Your task to perform on an android device: Turn on the flashlight Image 0: 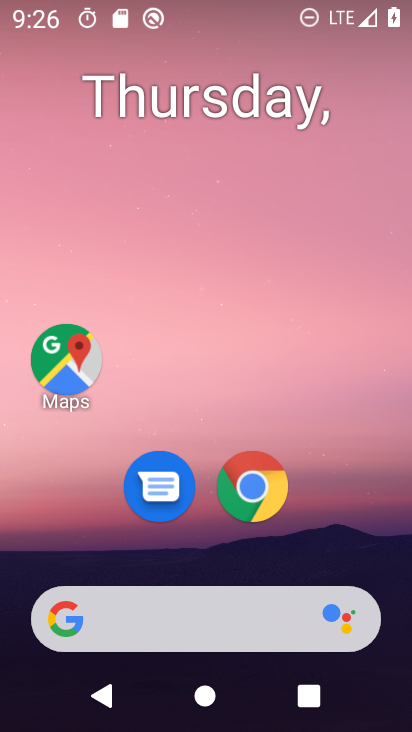
Step 0: drag from (173, 574) to (216, 77)
Your task to perform on an android device: Turn on the flashlight Image 1: 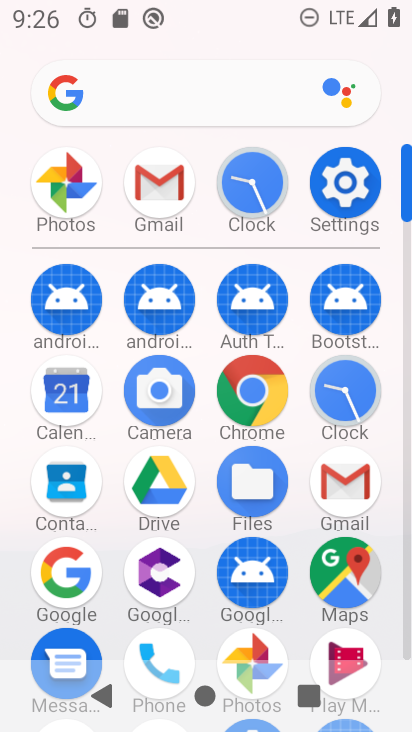
Step 1: click (330, 184)
Your task to perform on an android device: Turn on the flashlight Image 2: 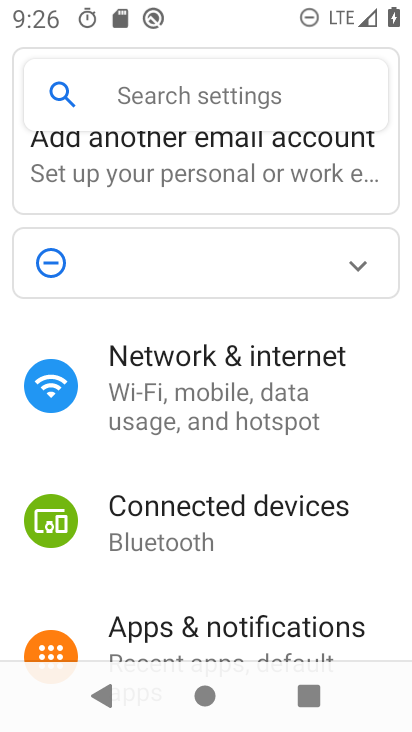
Step 2: click (204, 82)
Your task to perform on an android device: Turn on the flashlight Image 3: 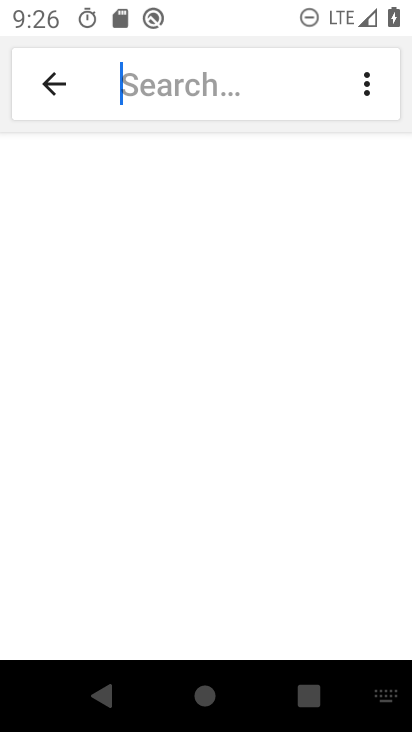
Step 3: type "flashlight"
Your task to perform on an android device: Turn on the flashlight Image 4: 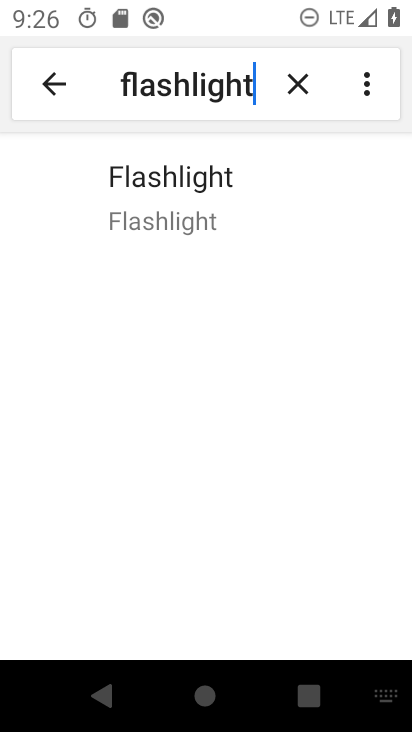
Step 4: click (180, 226)
Your task to perform on an android device: Turn on the flashlight Image 5: 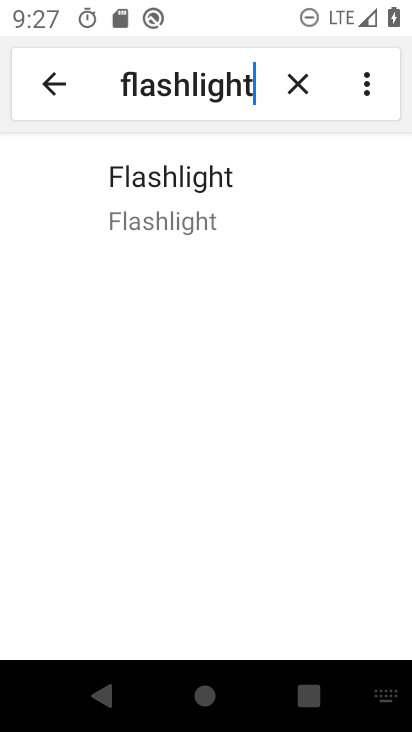
Step 5: task complete